Your task to perform on an android device: Open Google Chrome Image 0: 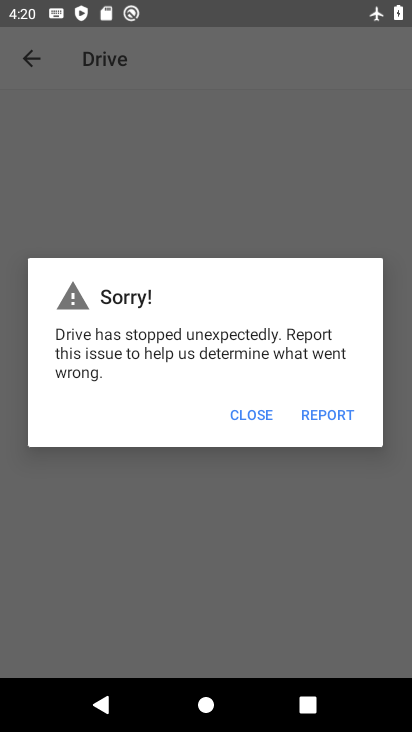
Step 0: press home button
Your task to perform on an android device: Open Google Chrome Image 1: 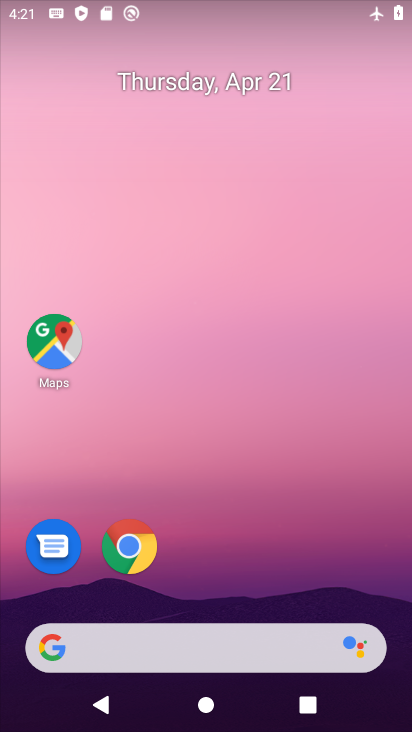
Step 1: click (135, 552)
Your task to perform on an android device: Open Google Chrome Image 2: 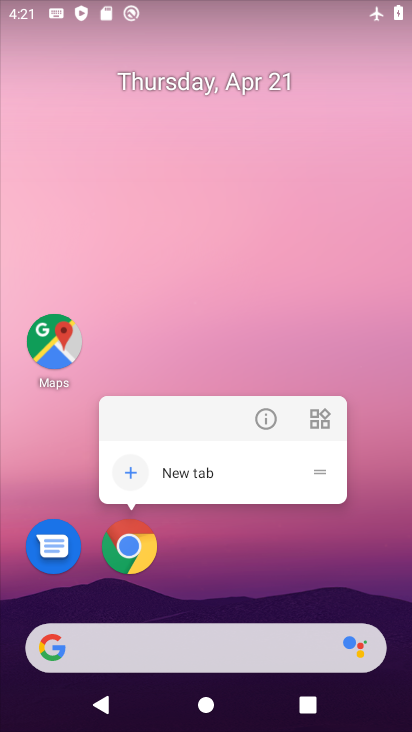
Step 2: click (140, 547)
Your task to perform on an android device: Open Google Chrome Image 3: 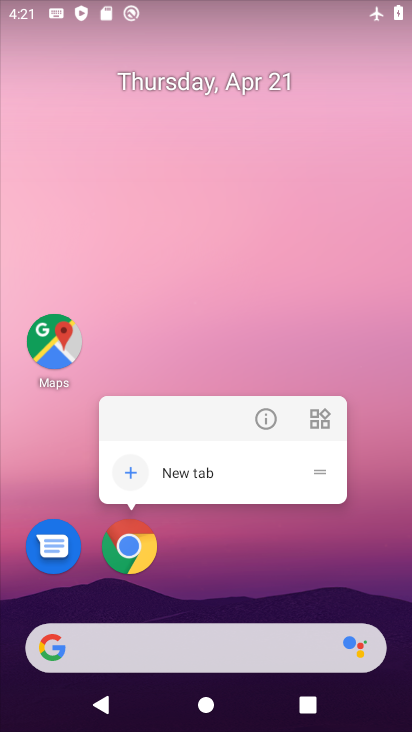
Step 3: click (140, 547)
Your task to perform on an android device: Open Google Chrome Image 4: 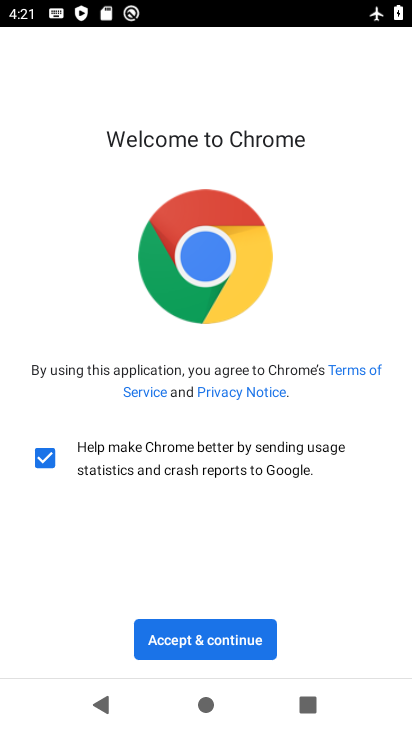
Step 4: click (248, 644)
Your task to perform on an android device: Open Google Chrome Image 5: 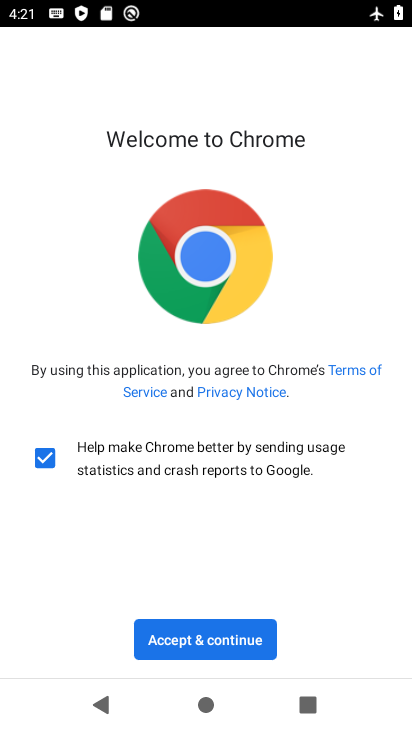
Step 5: click (248, 644)
Your task to perform on an android device: Open Google Chrome Image 6: 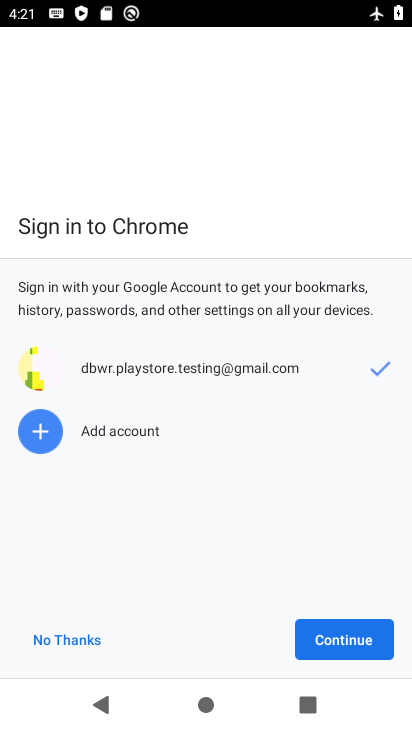
Step 6: click (345, 639)
Your task to perform on an android device: Open Google Chrome Image 7: 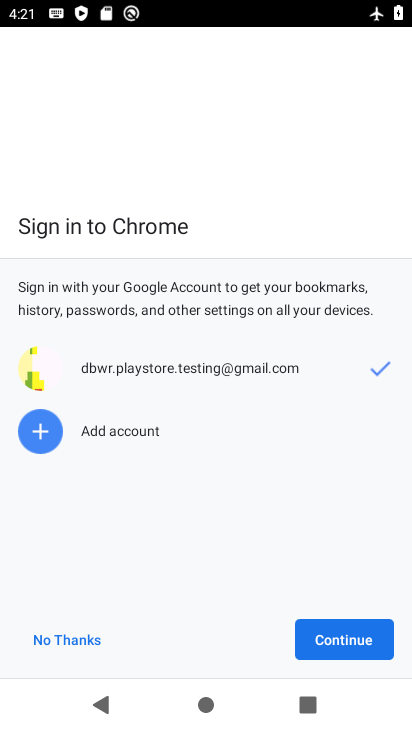
Step 7: click (345, 639)
Your task to perform on an android device: Open Google Chrome Image 8: 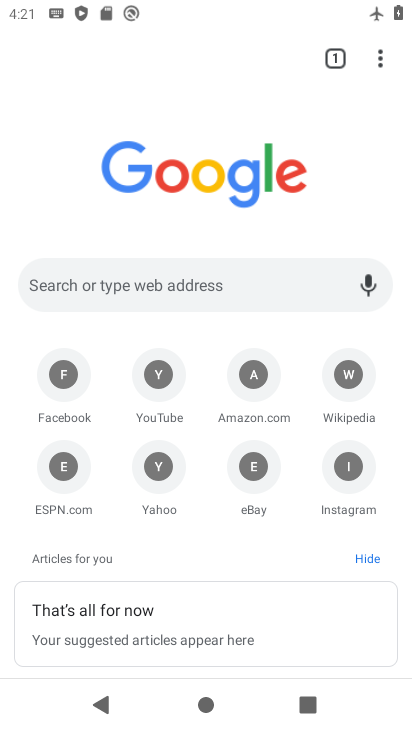
Step 8: task complete